Your task to perform on an android device: Open Chrome and go to settings Image 0: 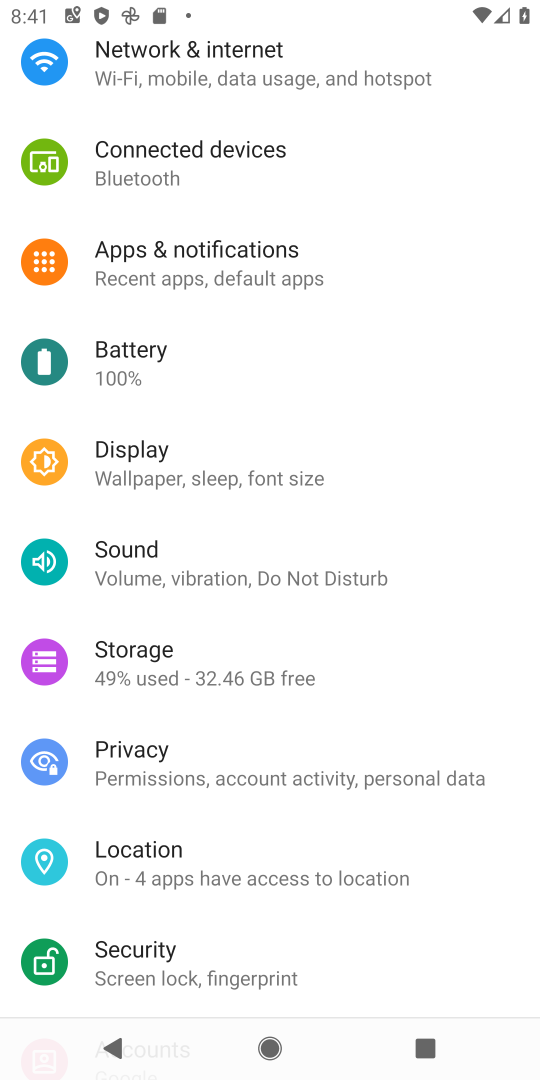
Step 0: press home button
Your task to perform on an android device: Open Chrome and go to settings Image 1: 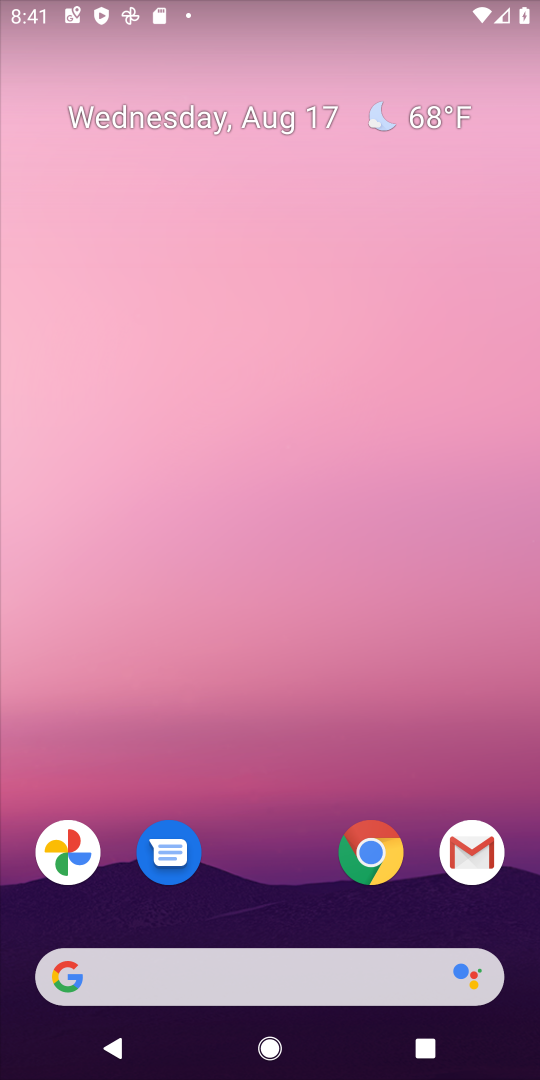
Step 1: click (372, 848)
Your task to perform on an android device: Open Chrome and go to settings Image 2: 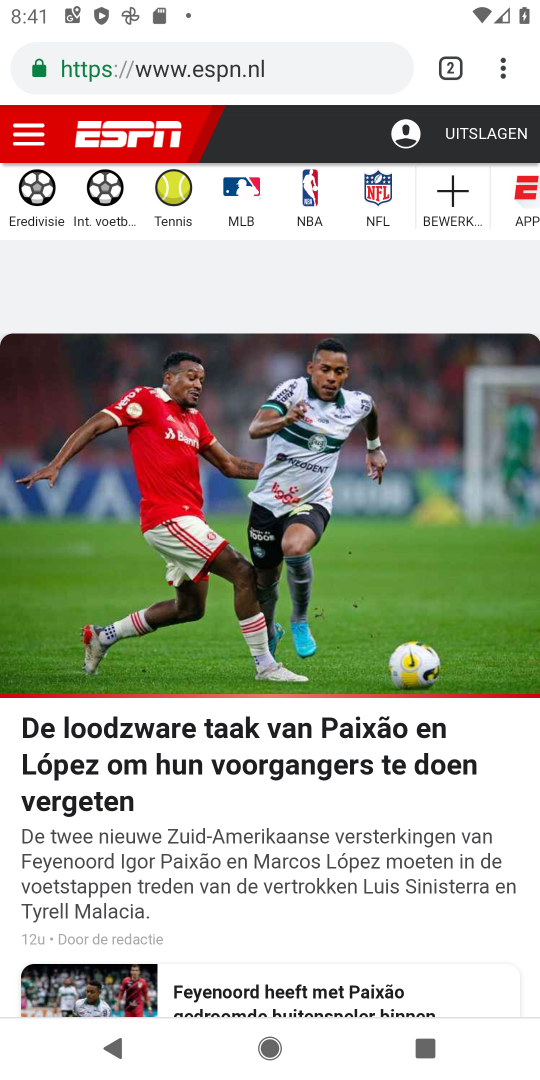
Step 2: click (499, 72)
Your task to perform on an android device: Open Chrome and go to settings Image 3: 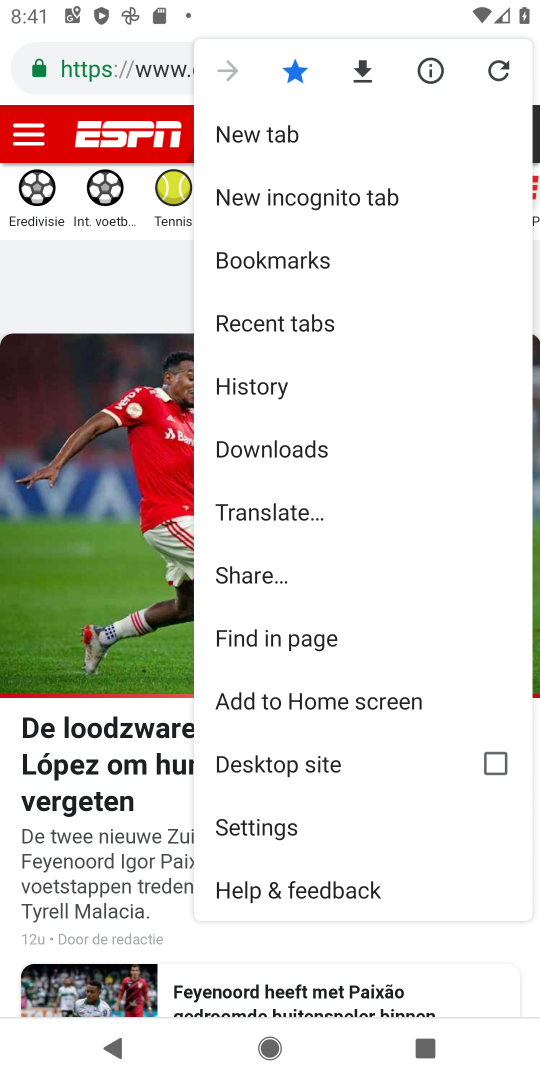
Step 3: click (262, 830)
Your task to perform on an android device: Open Chrome and go to settings Image 4: 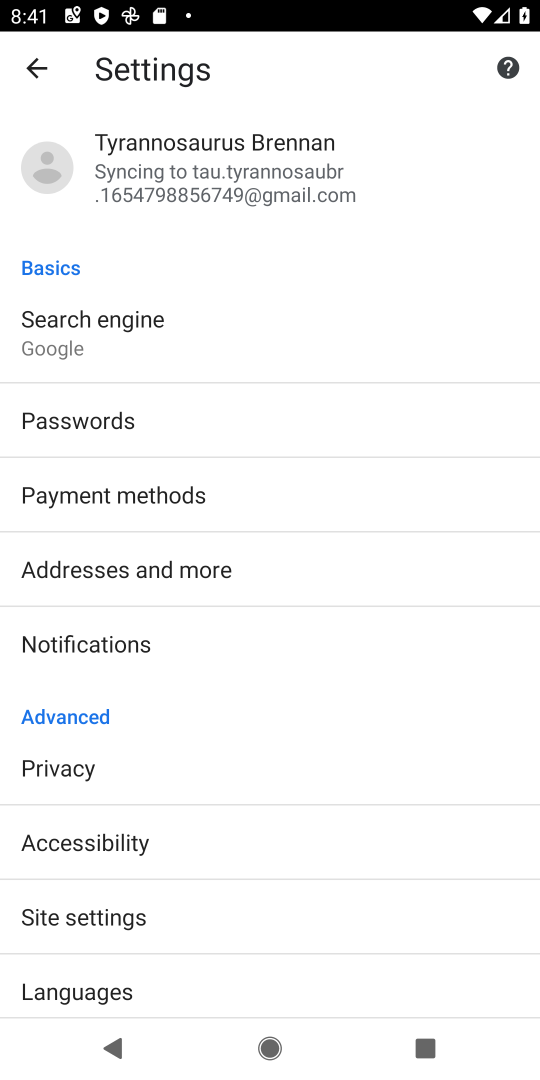
Step 4: task complete